Your task to perform on an android device: turn notification dots off Image 0: 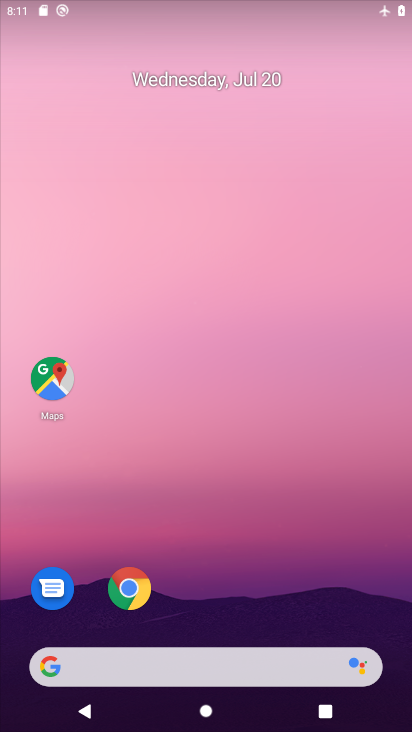
Step 0: press home button
Your task to perform on an android device: turn notification dots off Image 1: 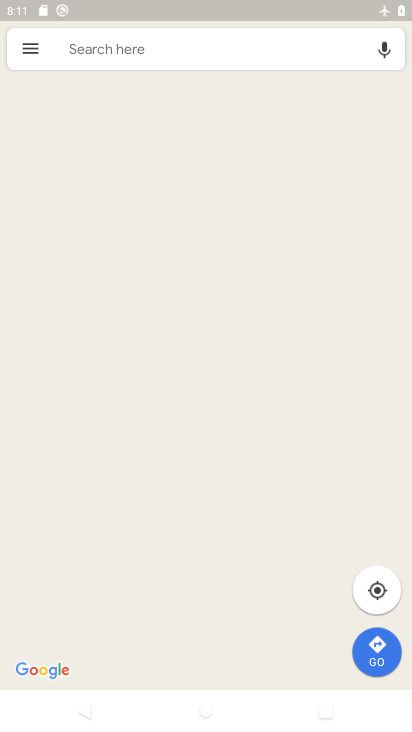
Step 1: click (253, 2)
Your task to perform on an android device: turn notification dots off Image 2: 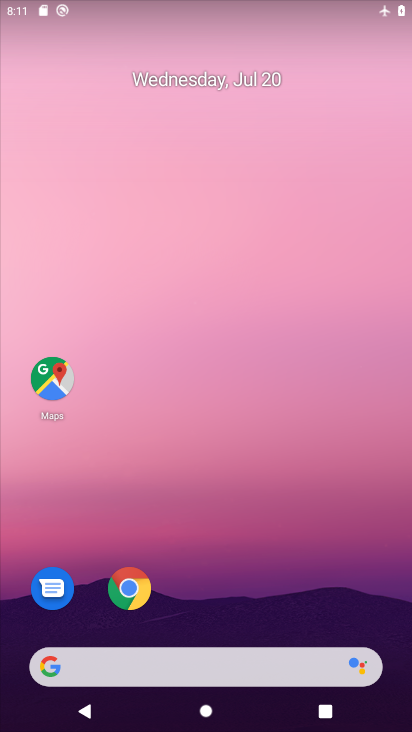
Step 2: drag from (242, 641) to (314, 37)
Your task to perform on an android device: turn notification dots off Image 3: 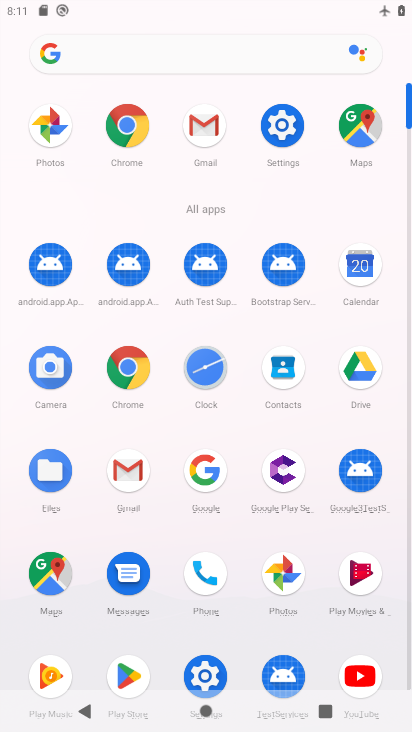
Step 3: click (275, 125)
Your task to perform on an android device: turn notification dots off Image 4: 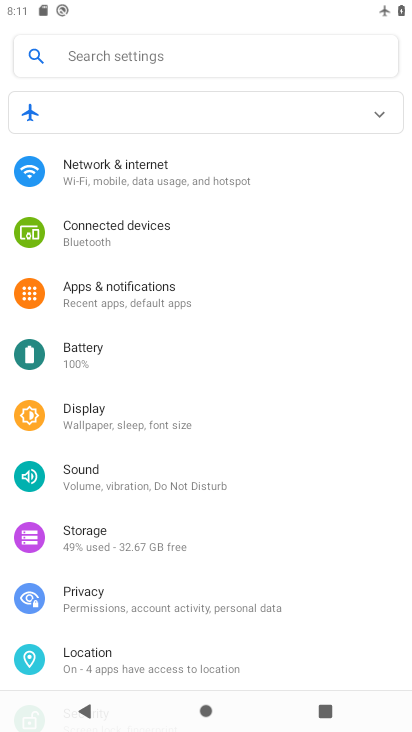
Step 4: click (129, 290)
Your task to perform on an android device: turn notification dots off Image 5: 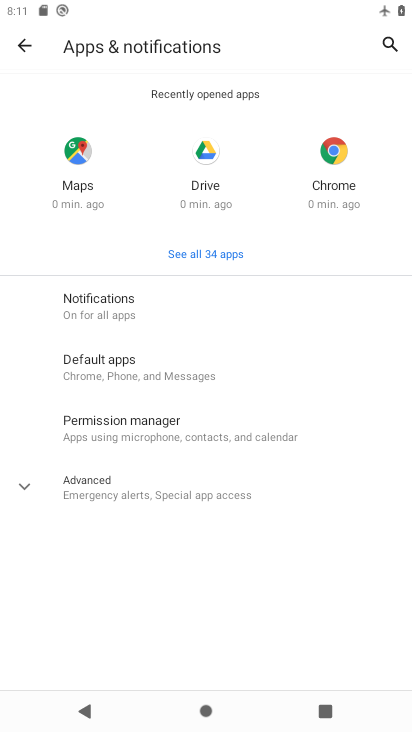
Step 5: click (151, 302)
Your task to perform on an android device: turn notification dots off Image 6: 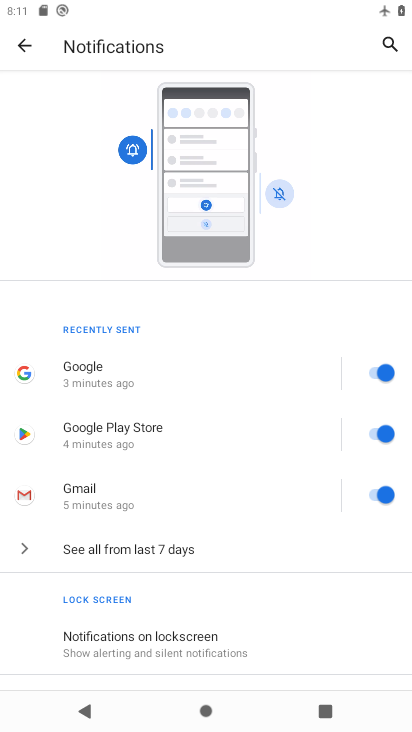
Step 6: drag from (238, 662) to (281, 224)
Your task to perform on an android device: turn notification dots off Image 7: 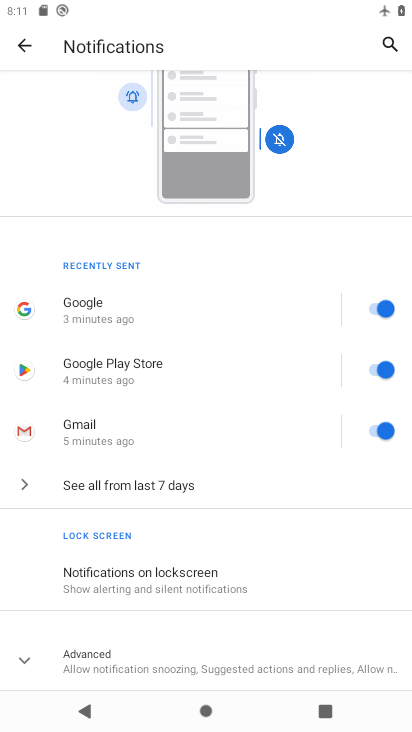
Step 7: click (221, 656)
Your task to perform on an android device: turn notification dots off Image 8: 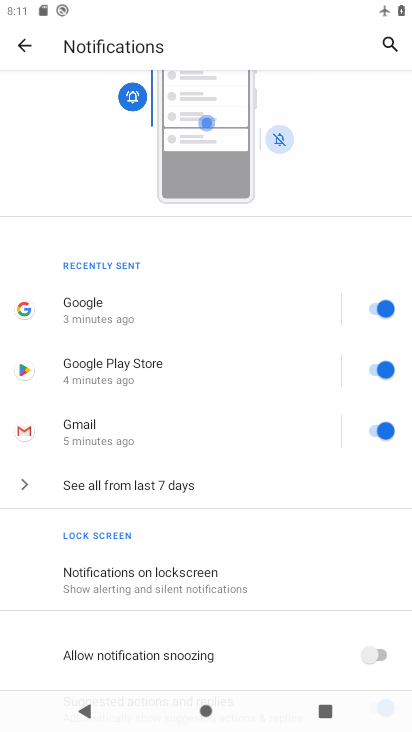
Step 8: drag from (219, 630) to (305, 92)
Your task to perform on an android device: turn notification dots off Image 9: 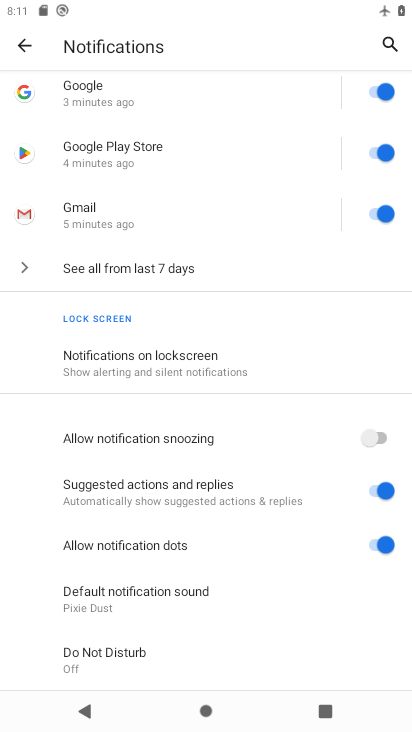
Step 9: click (381, 543)
Your task to perform on an android device: turn notification dots off Image 10: 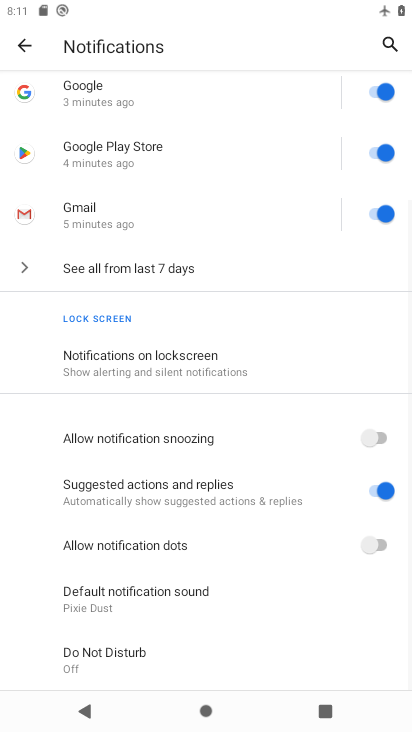
Step 10: task complete